Your task to perform on an android device: Open sound settings Image 0: 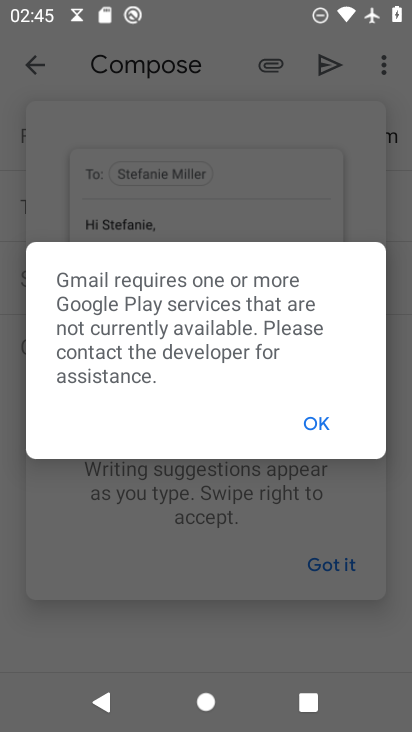
Step 0: press home button
Your task to perform on an android device: Open sound settings Image 1: 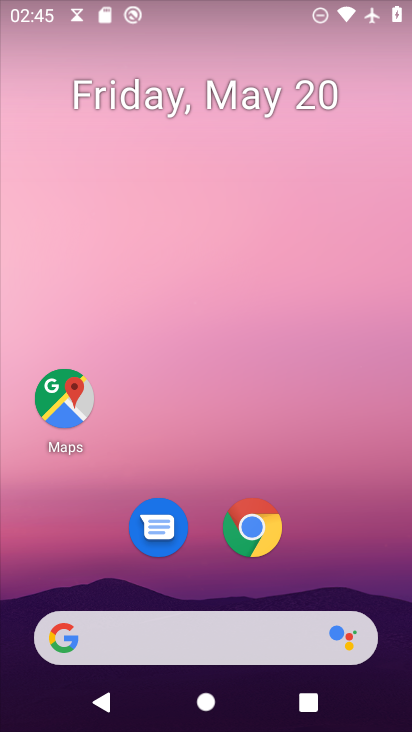
Step 1: drag from (168, 643) to (281, 267)
Your task to perform on an android device: Open sound settings Image 2: 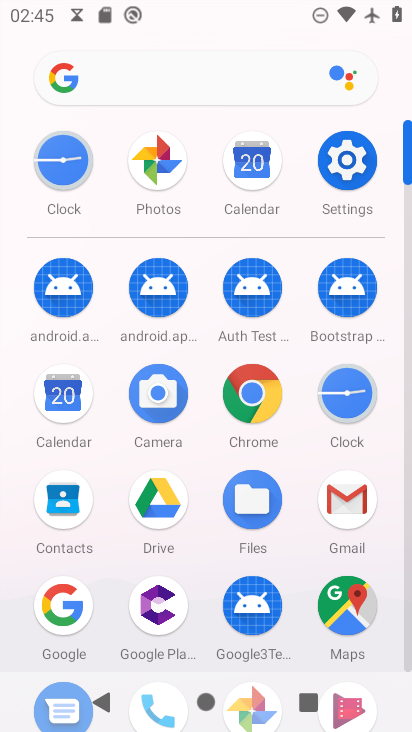
Step 2: click (347, 171)
Your task to perform on an android device: Open sound settings Image 3: 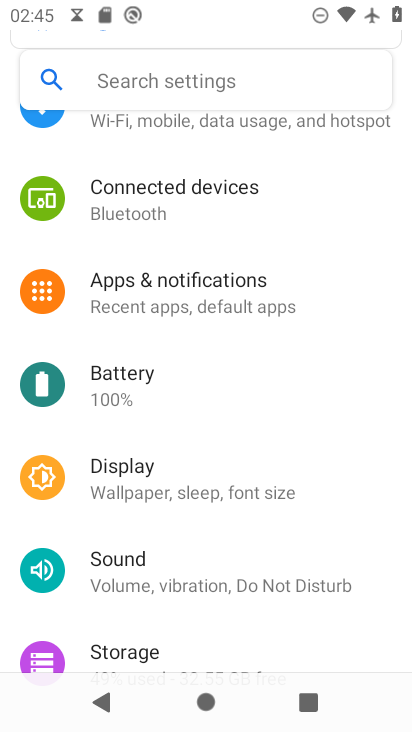
Step 3: click (150, 559)
Your task to perform on an android device: Open sound settings Image 4: 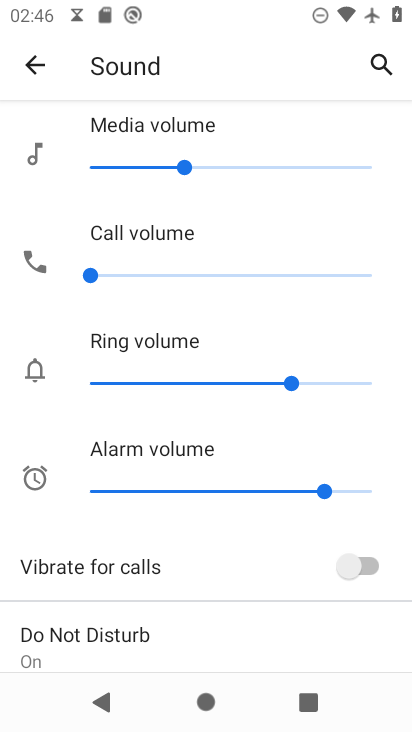
Step 4: task complete